Your task to perform on an android device: open app "Paramount+ | Peak Streaming" Image 0: 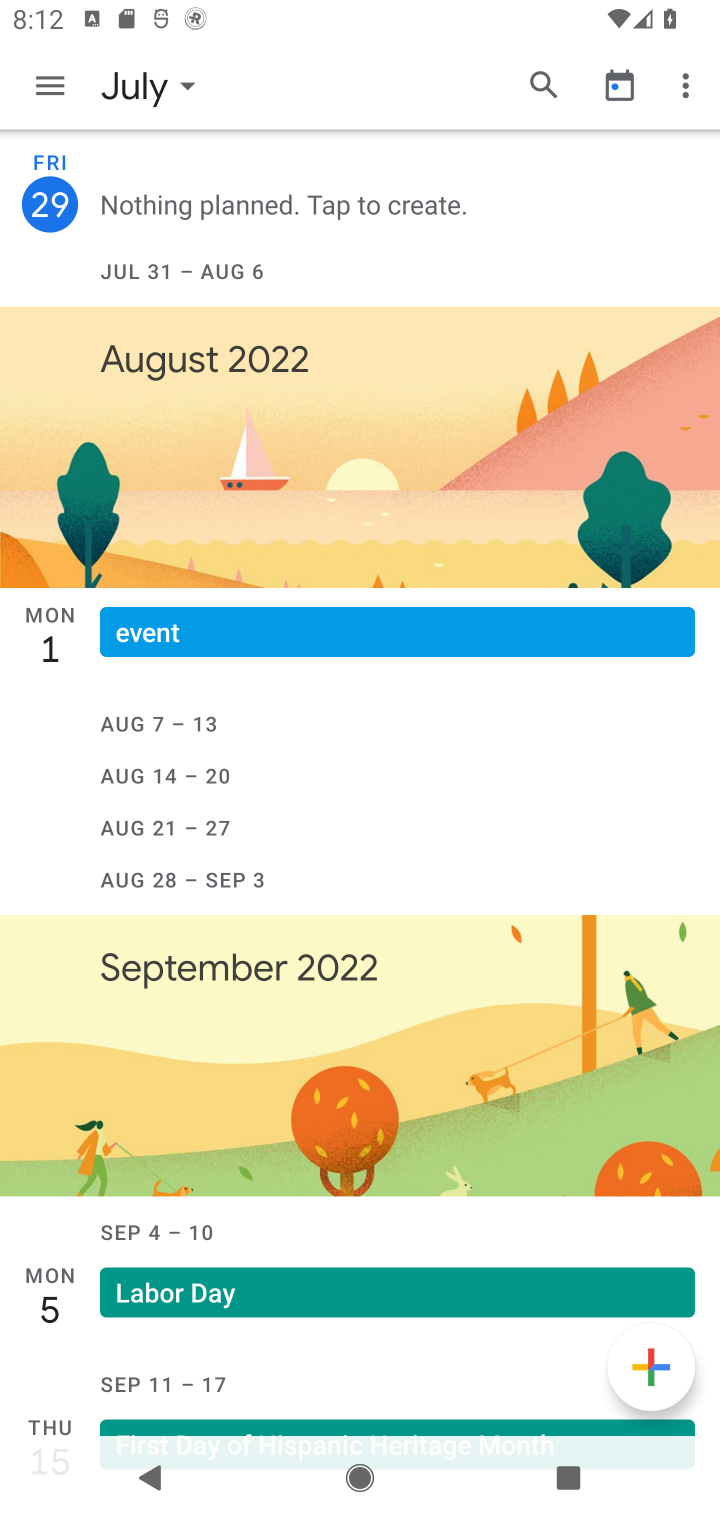
Step 0: press home button
Your task to perform on an android device: open app "Paramount+ | Peak Streaming" Image 1: 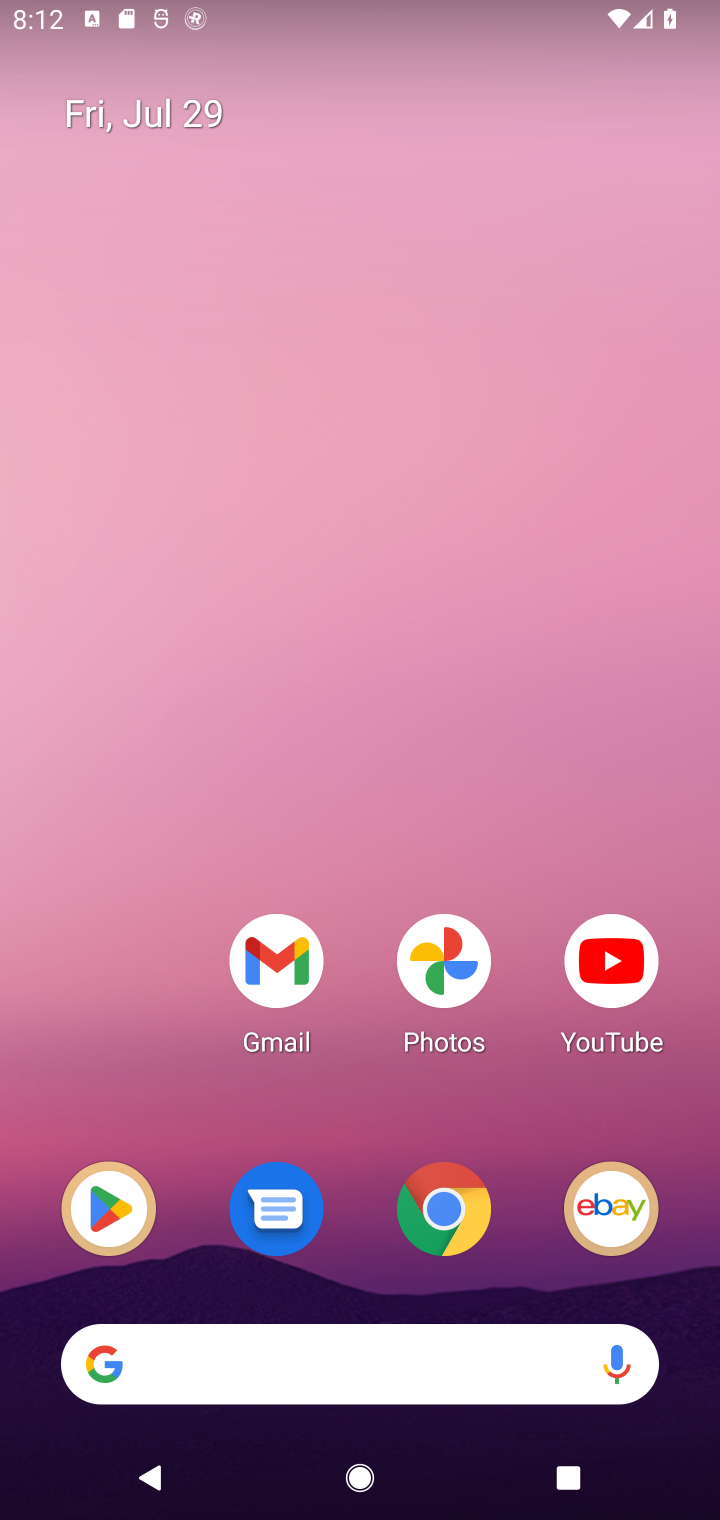
Step 1: click (93, 1219)
Your task to perform on an android device: open app "Paramount+ | Peak Streaming" Image 2: 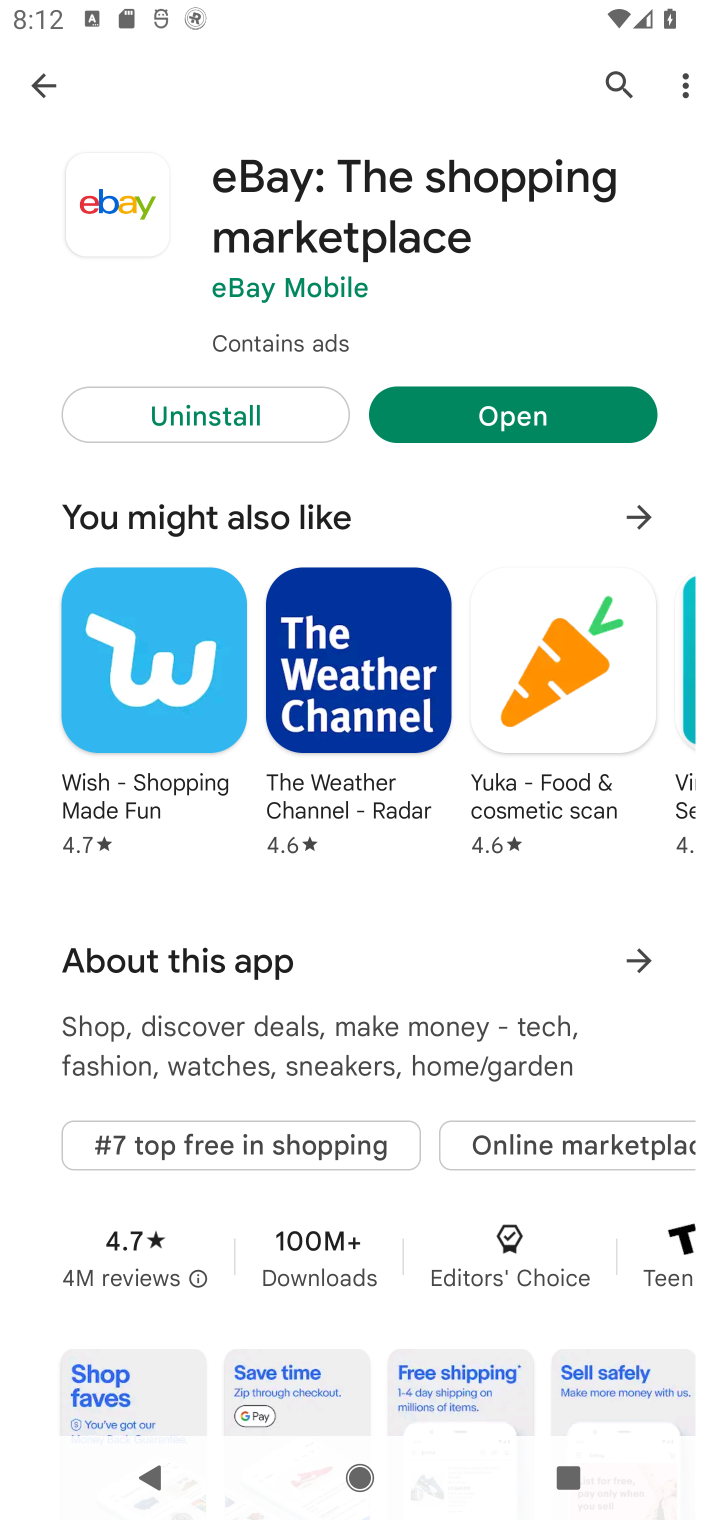
Step 2: click (607, 82)
Your task to perform on an android device: open app "Paramount+ | Peak Streaming" Image 3: 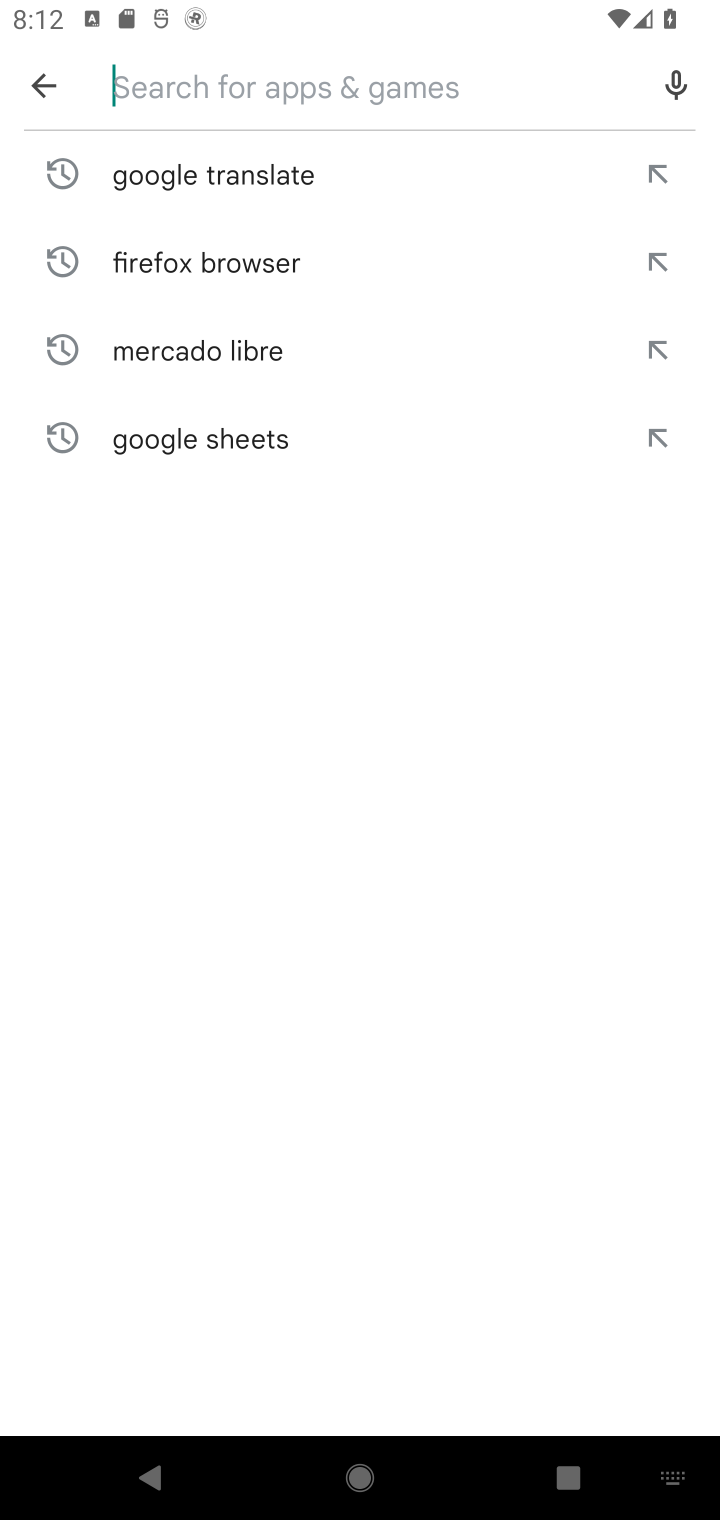
Step 3: type "Paramount+ | Peak Streaming"
Your task to perform on an android device: open app "Paramount+ | Peak Streaming" Image 4: 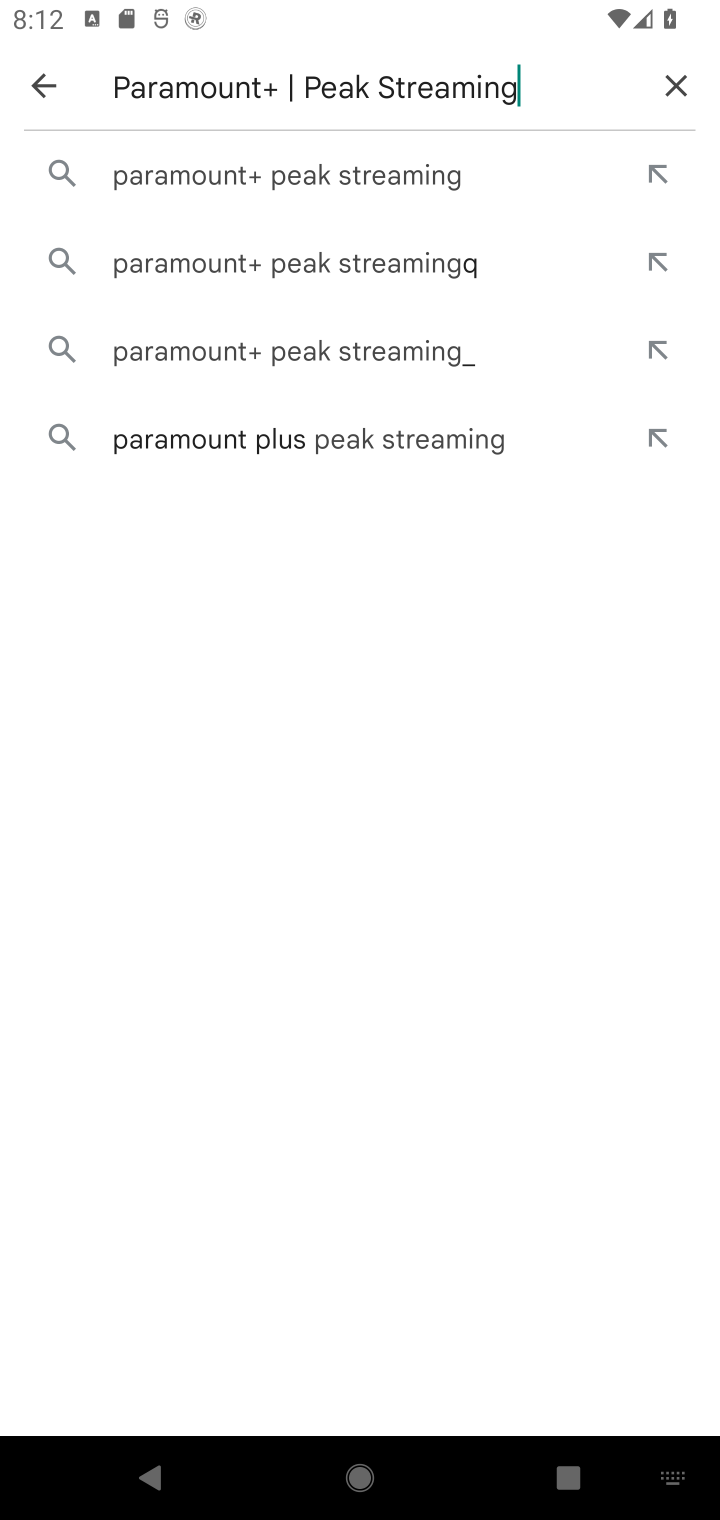
Step 4: click (164, 190)
Your task to perform on an android device: open app "Paramount+ | Peak Streaming" Image 5: 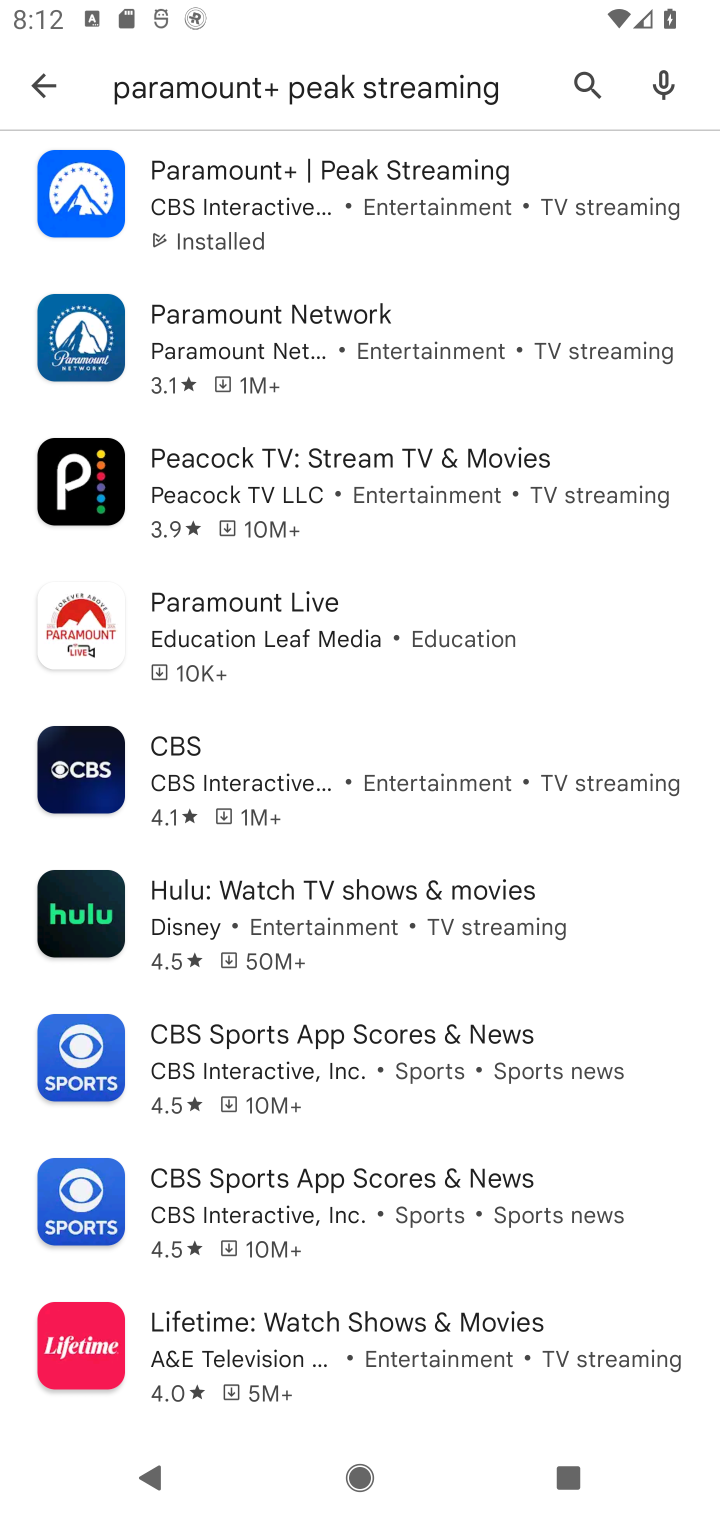
Step 5: click (164, 190)
Your task to perform on an android device: open app "Paramount+ | Peak Streaming" Image 6: 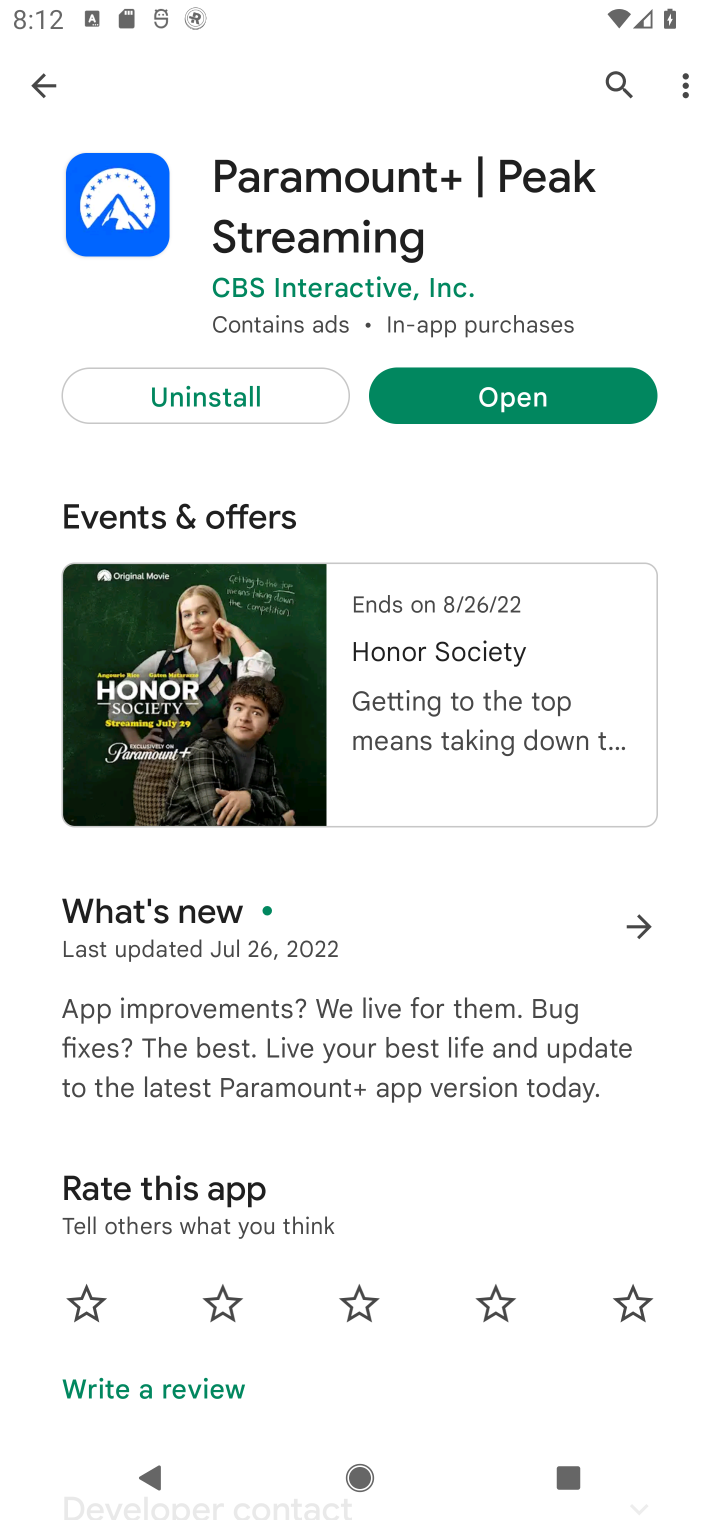
Step 6: click (531, 407)
Your task to perform on an android device: open app "Paramount+ | Peak Streaming" Image 7: 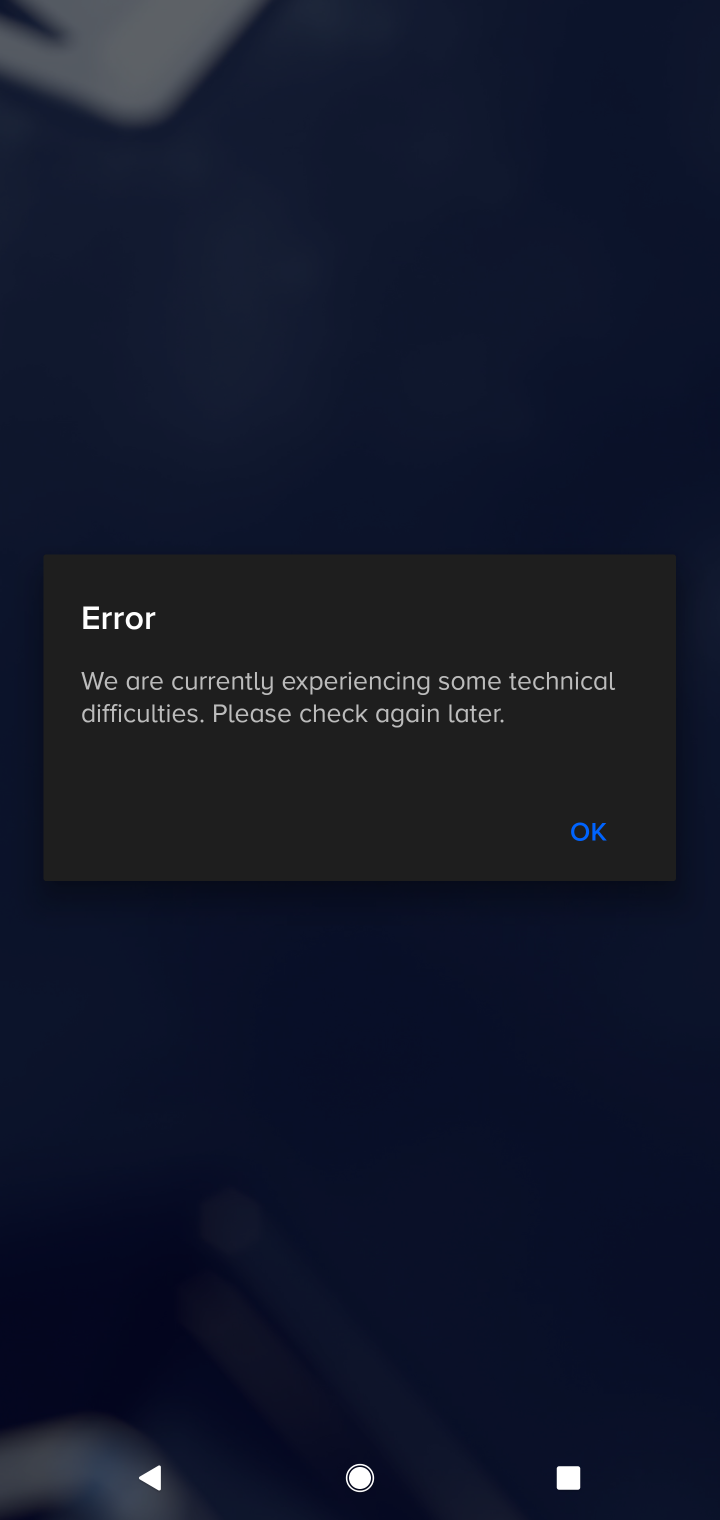
Step 7: task complete